Your task to perform on an android device: Go to privacy settings Image 0: 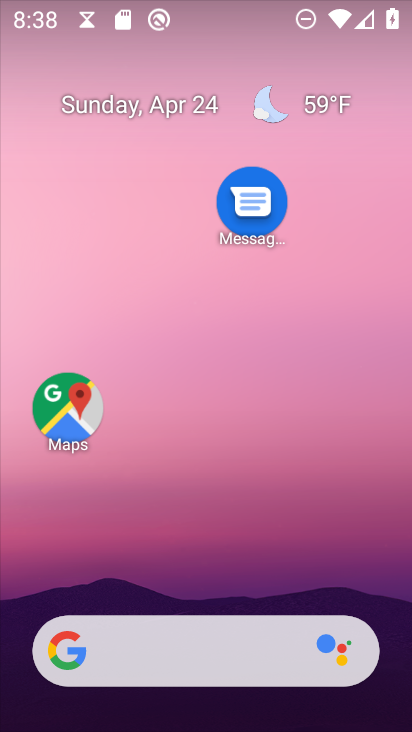
Step 0: drag from (251, 559) to (361, 123)
Your task to perform on an android device: Go to privacy settings Image 1: 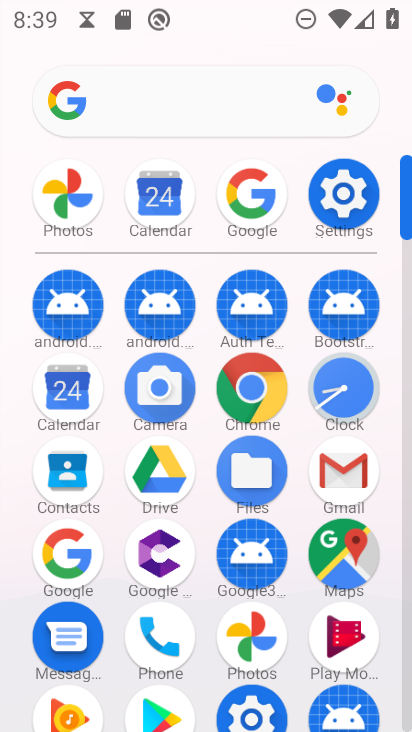
Step 1: click (341, 199)
Your task to perform on an android device: Go to privacy settings Image 2: 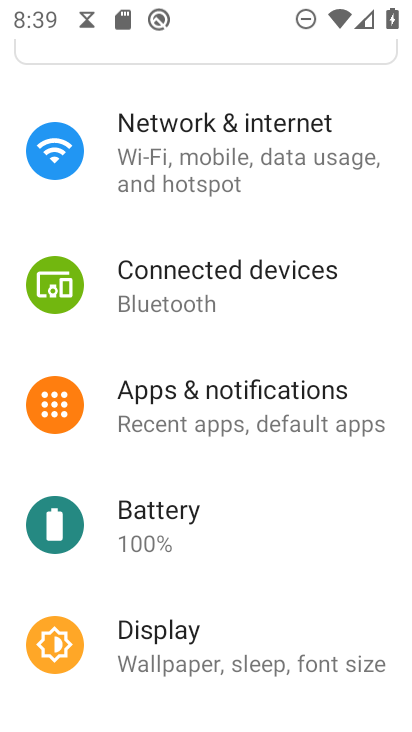
Step 2: drag from (242, 594) to (388, 141)
Your task to perform on an android device: Go to privacy settings Image 3: 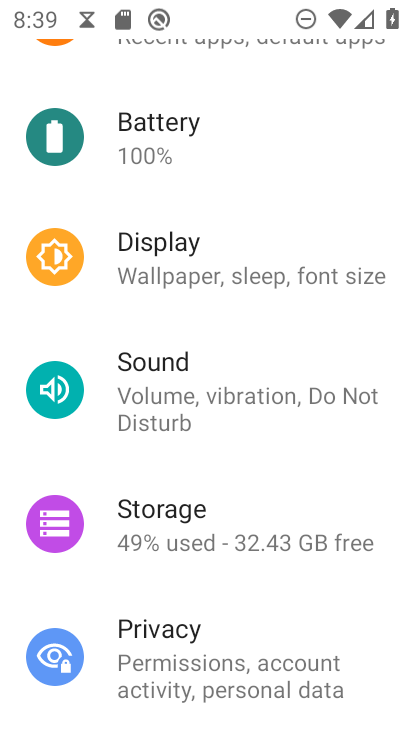
Step 3: click (163, 630)
Your task to perform on an android device: Go to privacy settings Image 4: 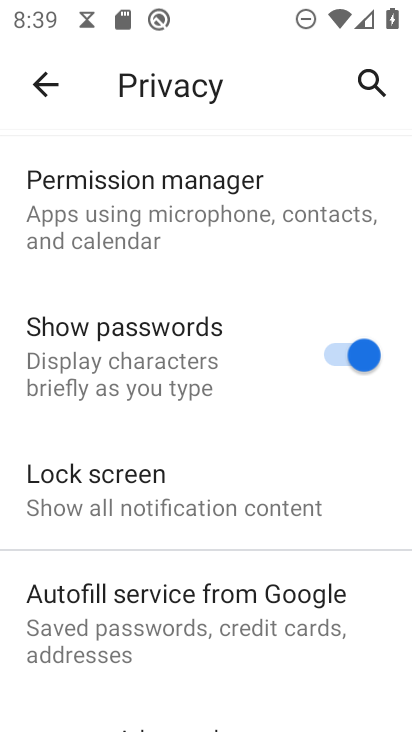
Step 4: task complete